Your task to perform on an android device: change alarm snooze length Image 0: 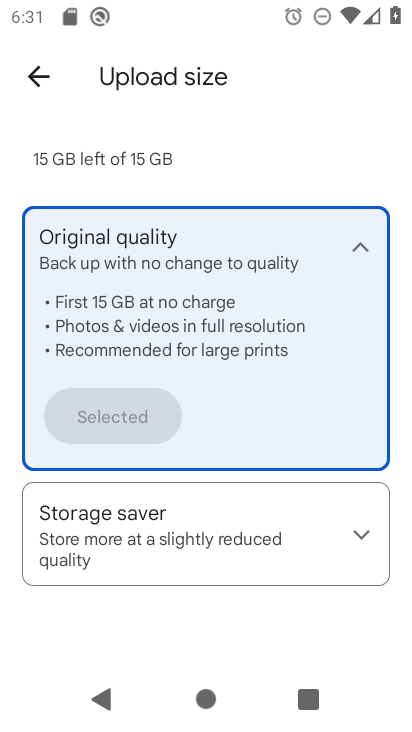
Step 0: press home button
Your task to perform on an android device: change alarm snooze length Image 1: 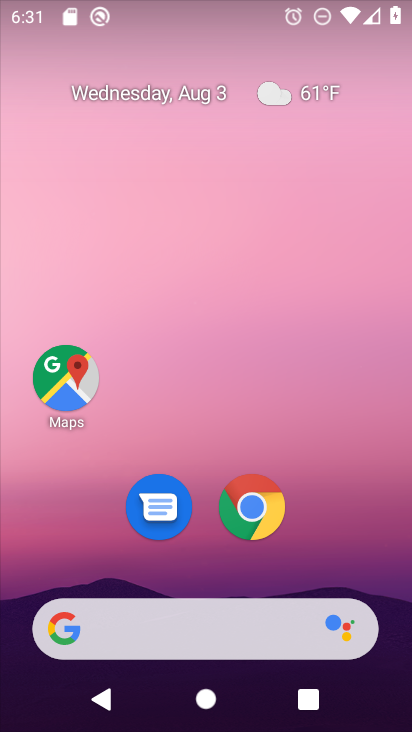
Step 1: drag from (357, 515) to (372, 6)
Your task to perform on an android device: change alarm snooze length Image 2: 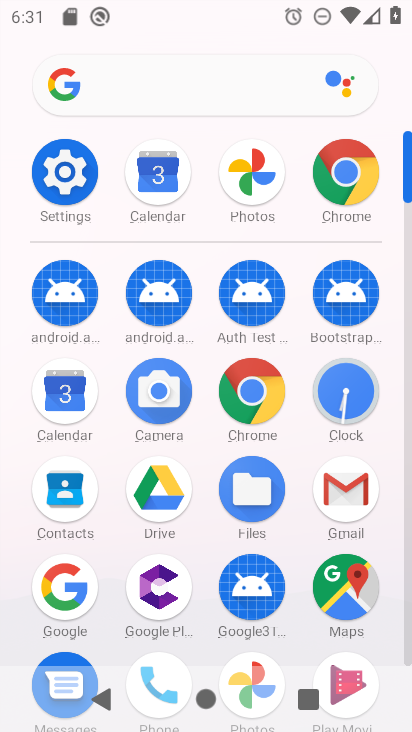
Step 2: click (322, 392)
Your task to perform on an android device: change alarm snooze length Image 3: 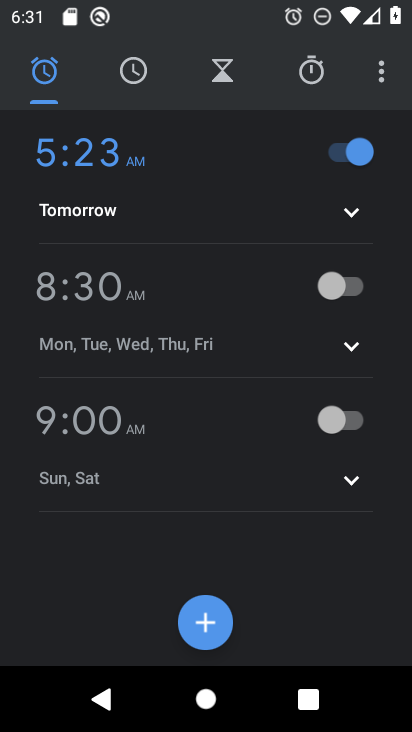
Step 3: click (391, 71)
Your task to perform on an android device: change alarm snooze length Image 4: 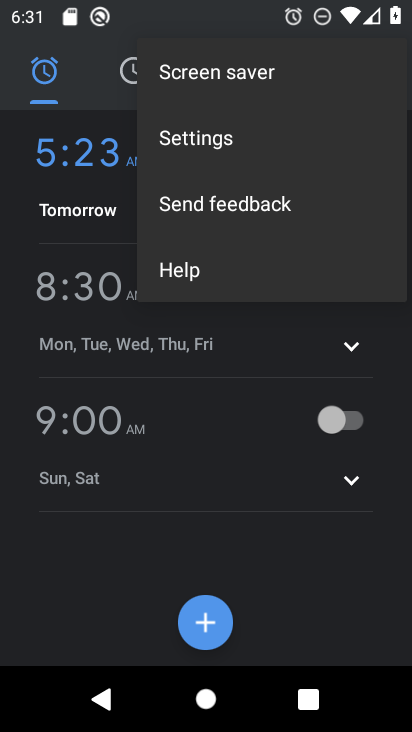
Step 4: click (201, 127)
Your task to perform on an android device: change alarm snooze length Image 5: 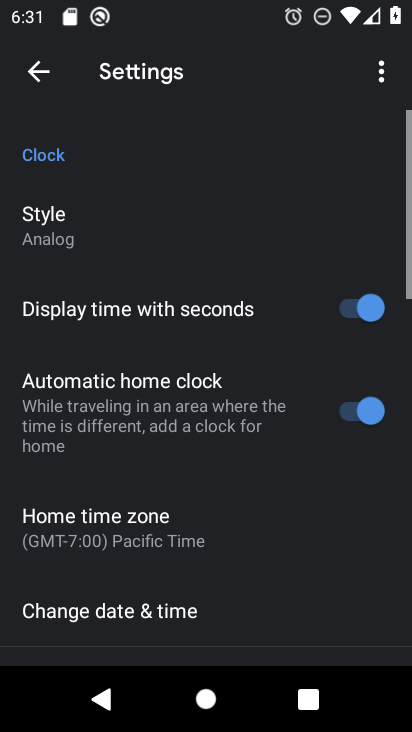
Step 5: drag from (235, 566) to (290, 68)
Your task to perform on an android device: change alarm snooze length Image 6: 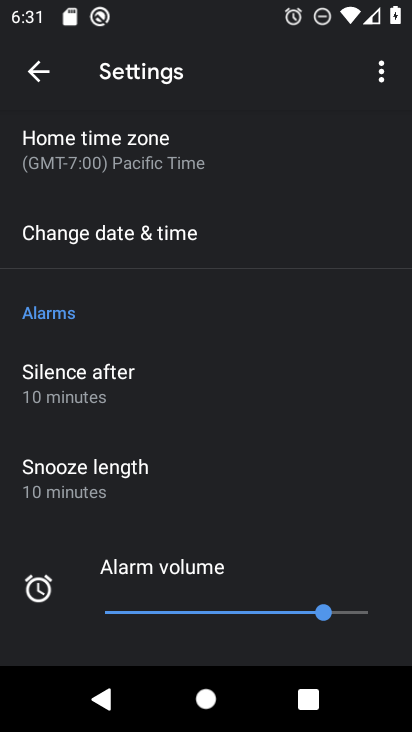
Step 6: click (82, 491)
Your task to perform on an android device: change alarm snooze length Image 7: 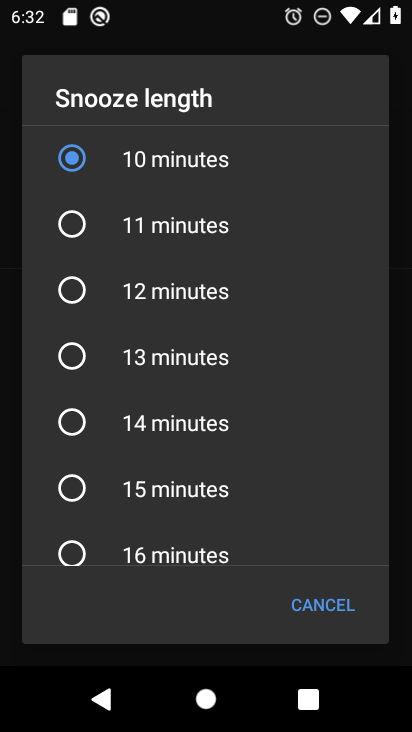
Step 7: click (154, 236)
Your task to perform on an android device: change alarm snooze length Image 8: 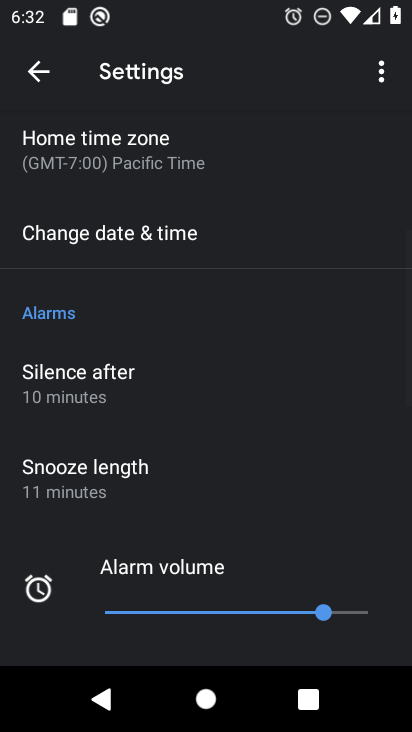
Step 8: task complete